Your task to perform on an android device: Open network settings Image 0: 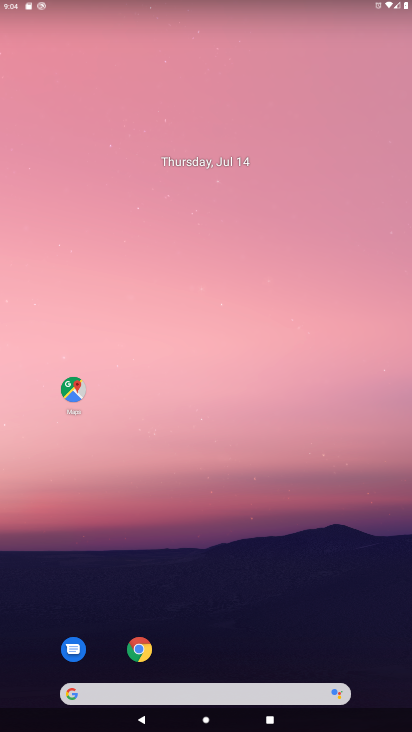
Step 0: drag from (257, 617) to (284, 2)
Your task to perform on an android device: Open network settings Image 1: 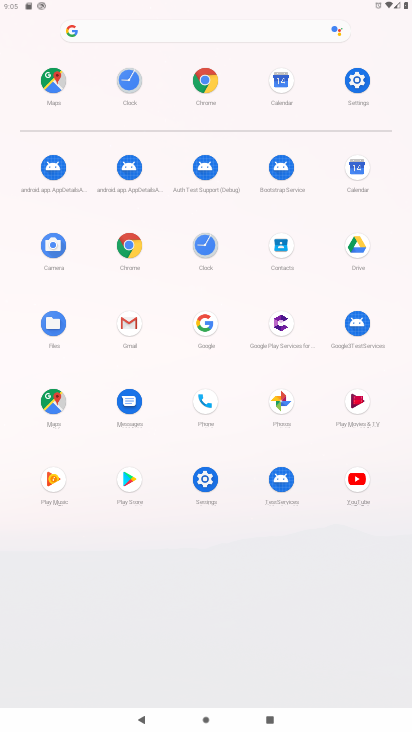
Step 1: click (208, 477)
Your task to perform on an android device: Open network settings Image 2: 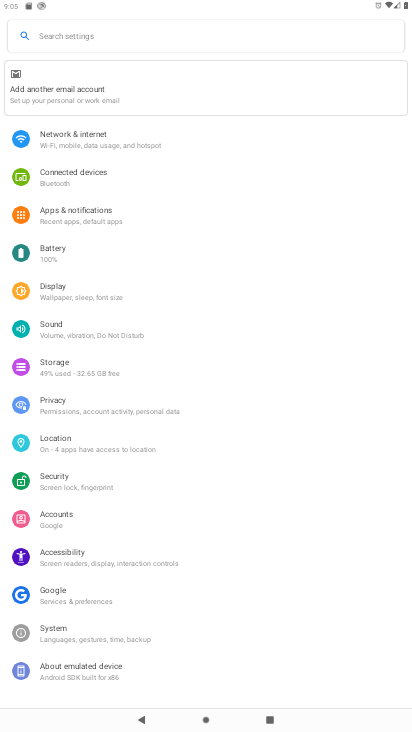
Step 2: click (85, 154)
Your task to perform on an android device: Open network settings Image 3: 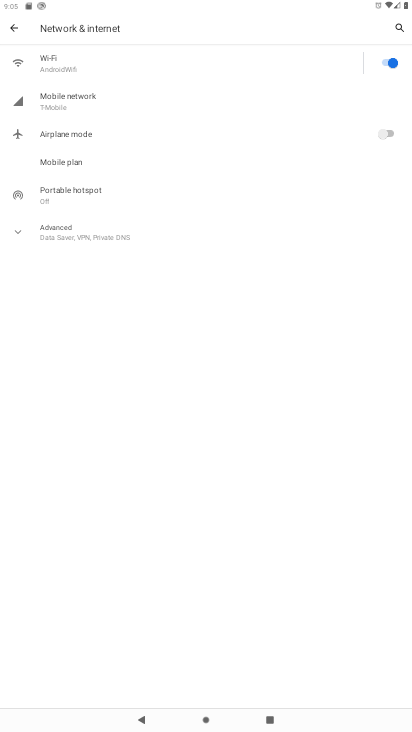
Step 3: task complete